Your task to perform on an android device: Open Yahoo.com Image 0: 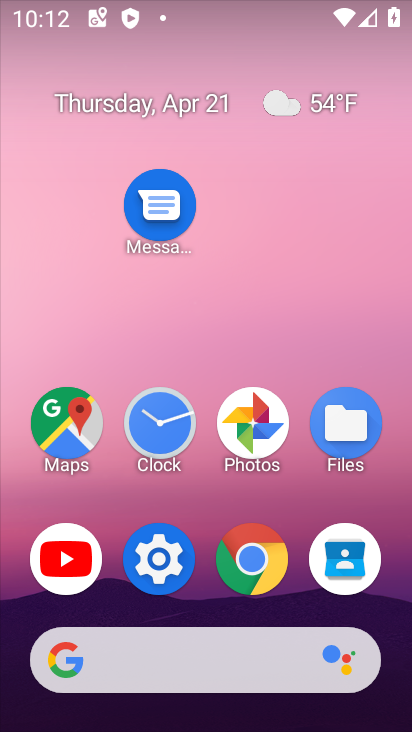
Step 0: click (399, 455)
Your task to perform on an android device: Open Yahoo.com Image 1: 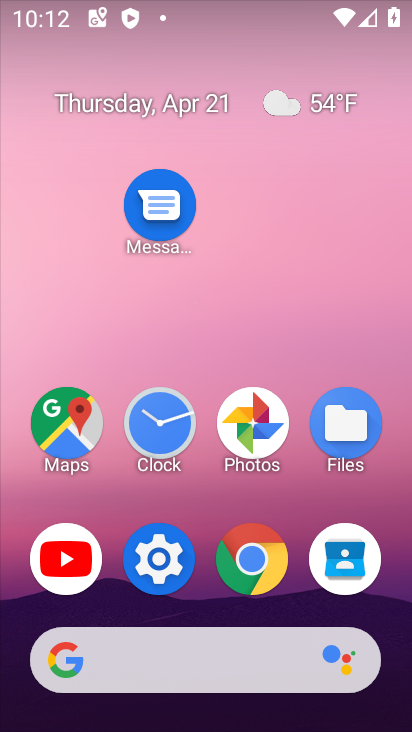
Step 1: click (258, 565)
Your task to perform on an android device: Open Yahoo.com Image 2: 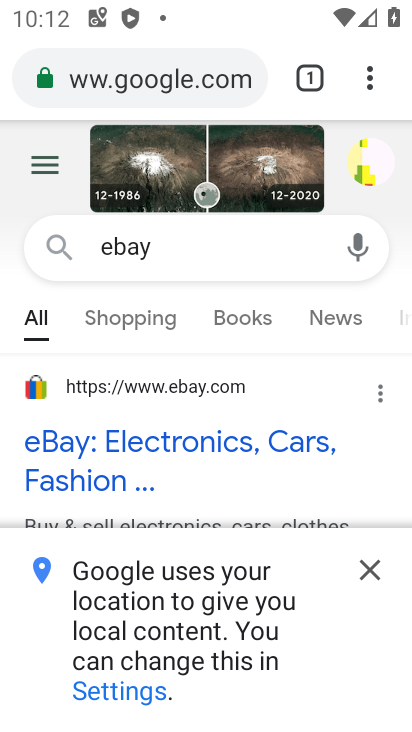
Step 2: click (368, 80)
Your task to perform on an android device: Open Yahoo.com Image 3: 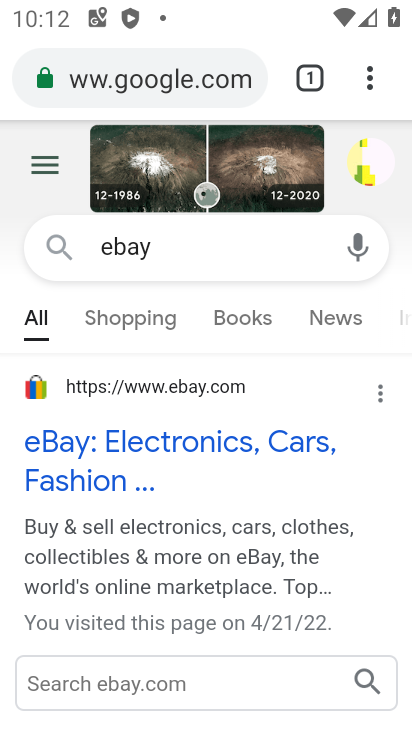
Step 3: click (367, 84)
Your task to perform on an android device: Open Yahoo.com Image 4: 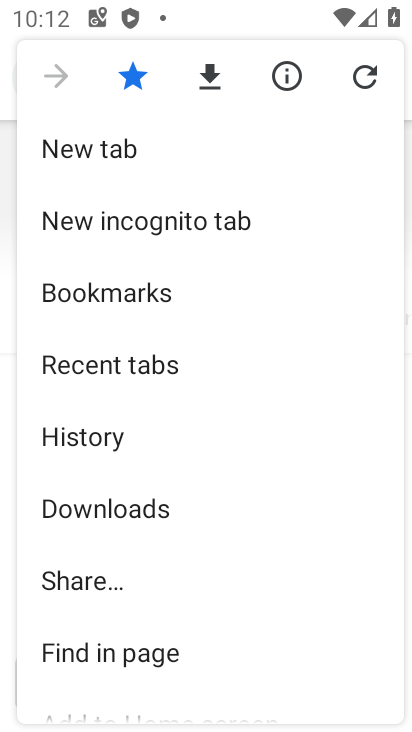
Step 4: drag from (264, 560) to (315, 189)
Your task to perform on an android device: Open Yahoo.com Image 5: 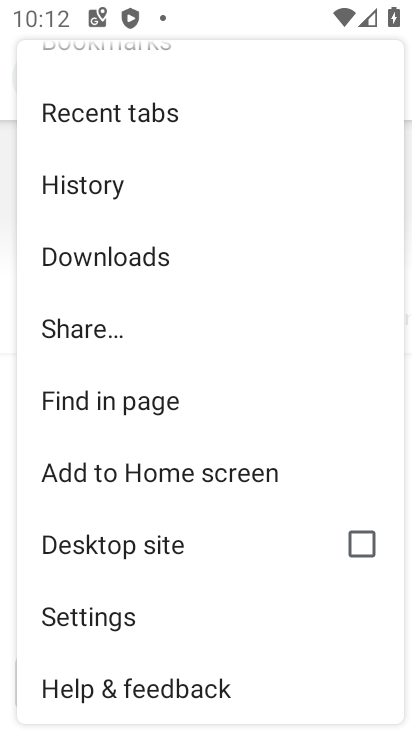
Step 5: drag from (287, 116) to (249, 667)
Your task to perform on an android device: Open Yahoo.com Image 6: 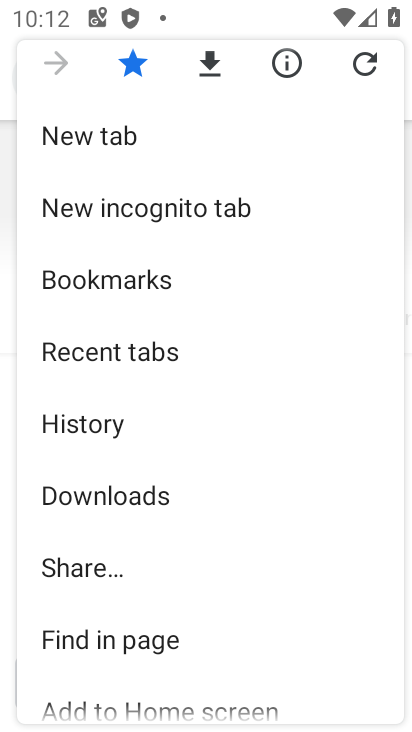
Step 6: click (77, 128)
Your task to perform on an android device: Open Yahoo.com Image 7: 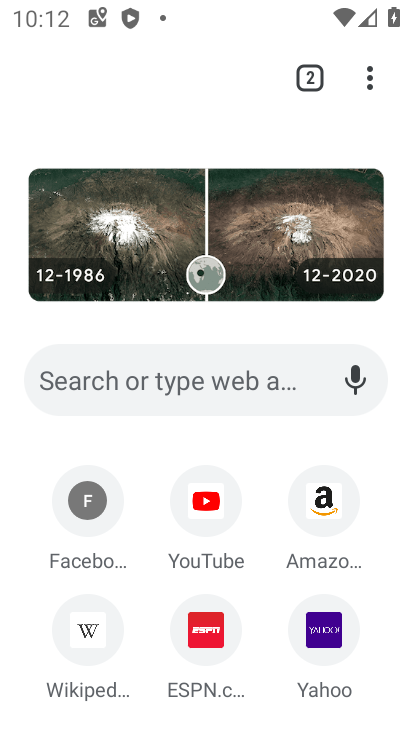
Step 7: click (327, 633)
Your task to perform on an android device: Open Yahoo.com Image 8: 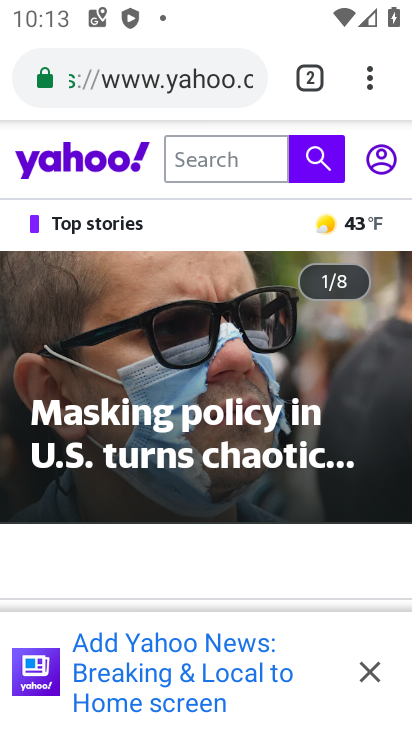
Step 8: task complete